Your task to perform on an android device: Is it going to rain today? Image 0: 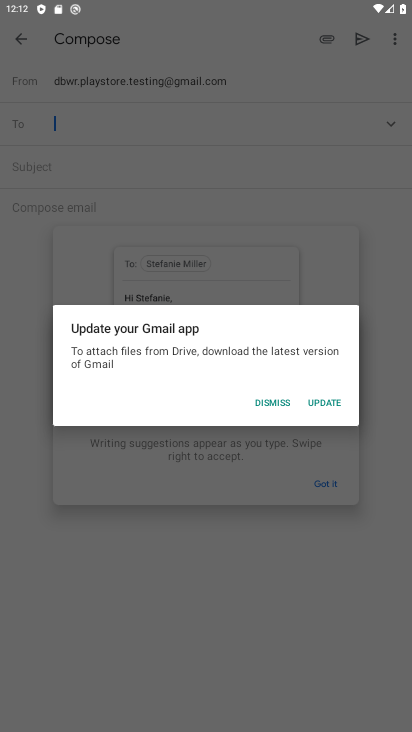
Step 0: press home button
Your task to perform on an android device: Is it going to rain today? Image 1: 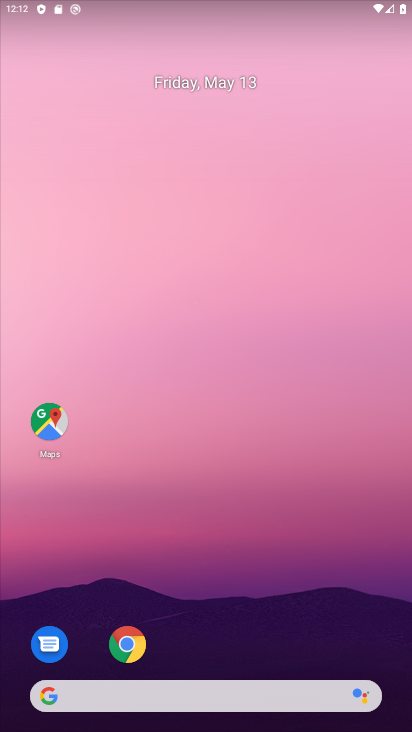
Step 1: click (218, 693)
Your task to perform on an android device: Is it going to rain today? Image 2: 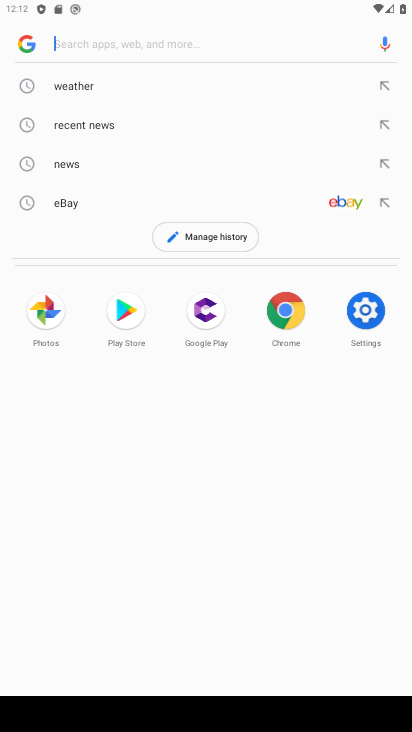
Step 2: click (123, 81)
Your task to perform on an android device: Is it going to rain today? Image 3: 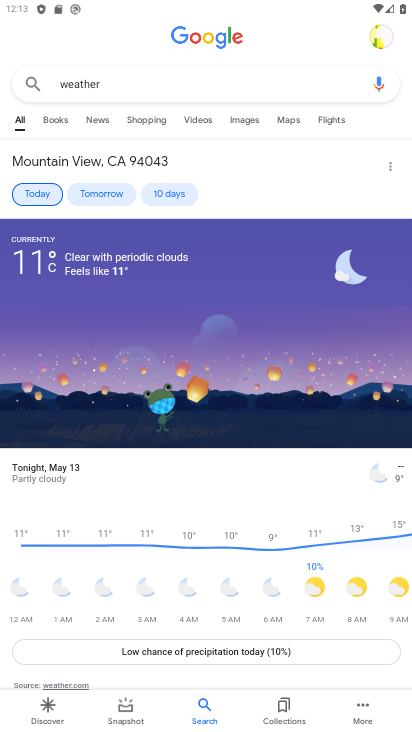
Step 3: task complete